Your task to perform on an android device: see creations saved in the google photos Image 0: 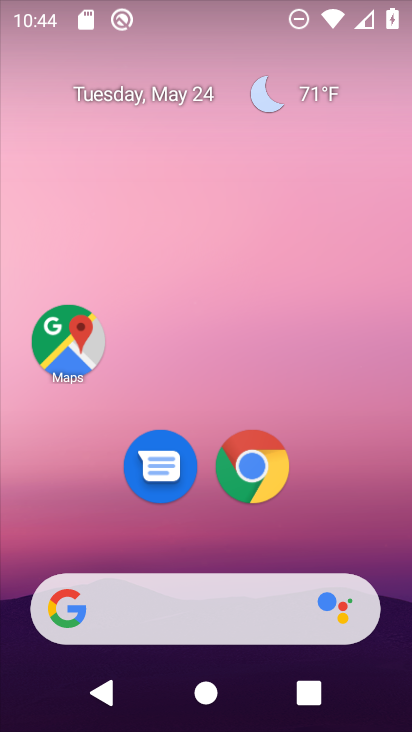
Step 0: drag from (206, 541) to (208, 1)
Your task to perform on an android device: see creations saved in the google photos Image 1: 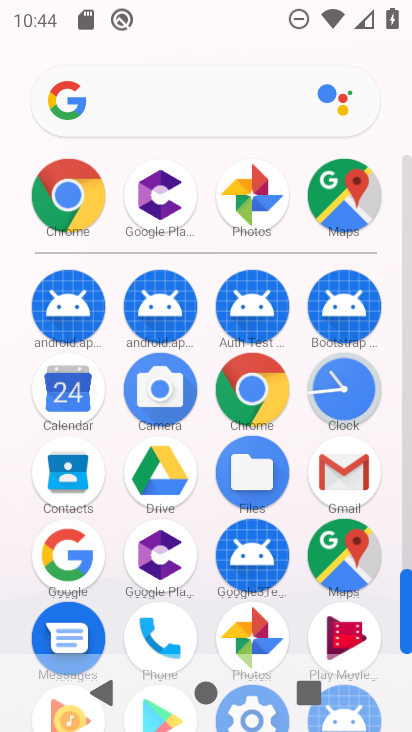
Step 1: drag from (198, 546) to (245, 231)
Your task to perform on an android device: see creations saved in the google photos Image 2: 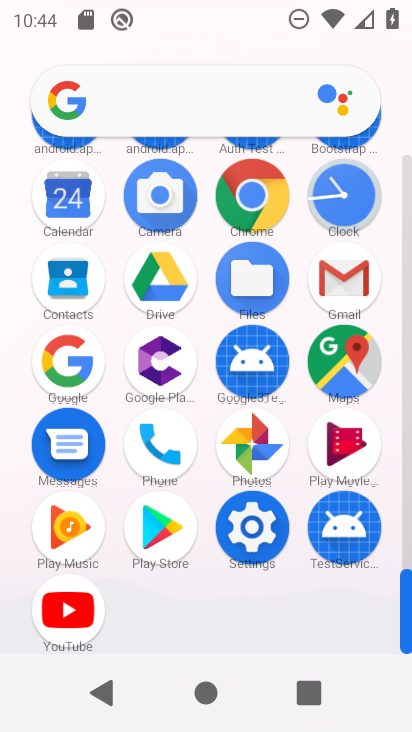
Step 2: click (275, 443)
Your task to perform on an android device: see creations saved in the google photos Image 3: 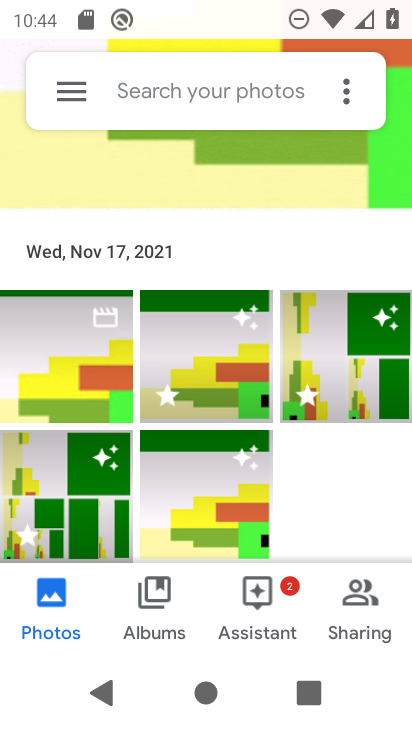
Step 3: click (253, 86)
Your task to perform on an android device: see creations saved in the google photos Image 4: 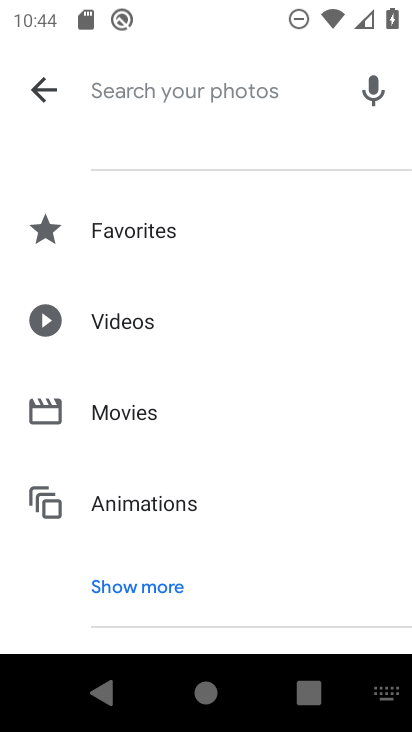
Step 4: type "creations"
Your task to perform on an android device: see creations saved in the google photos Image 5: 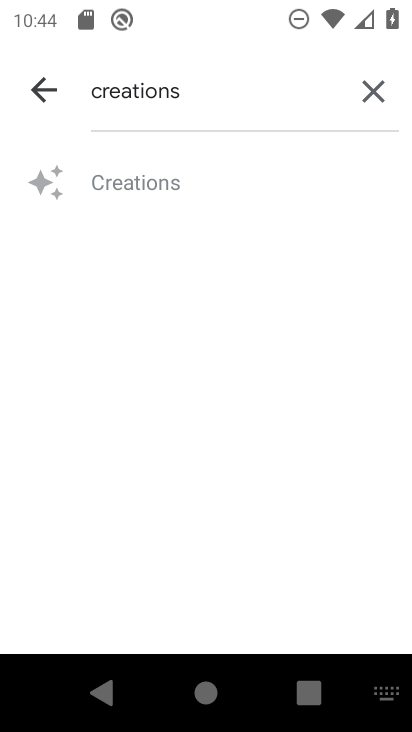
Step 5: click (132, 187)
Your task to perform on an android device: see creations saved in the google photos Image 6: 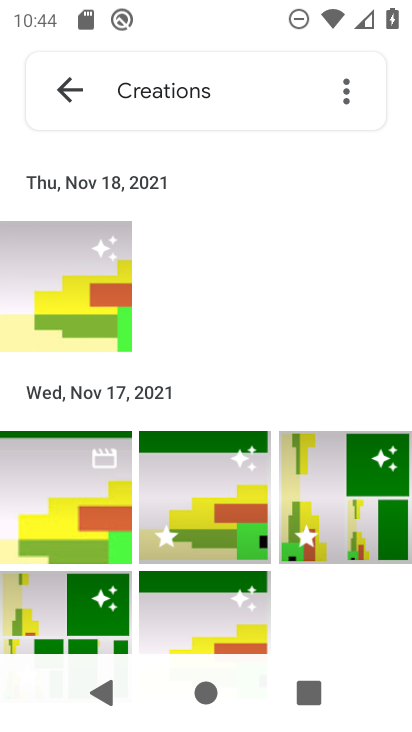
Step 6: task complete